Your task to perform on an android device: Search for sushi restaurants on Maps Image 0: 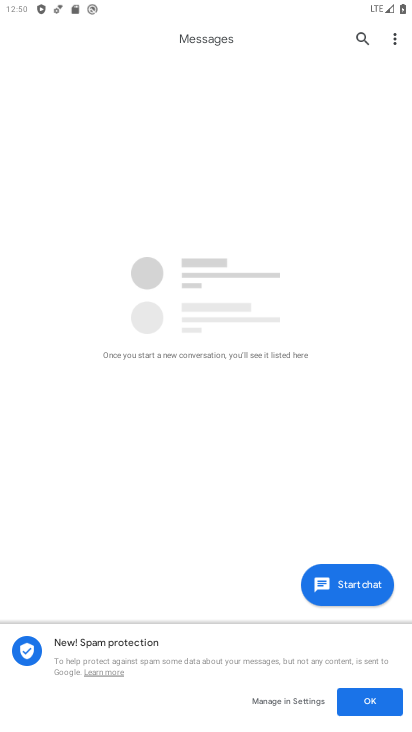
Step 0: press back button
Your task to perform on an android device: Search for sushi restaurants on Maps Image 1: 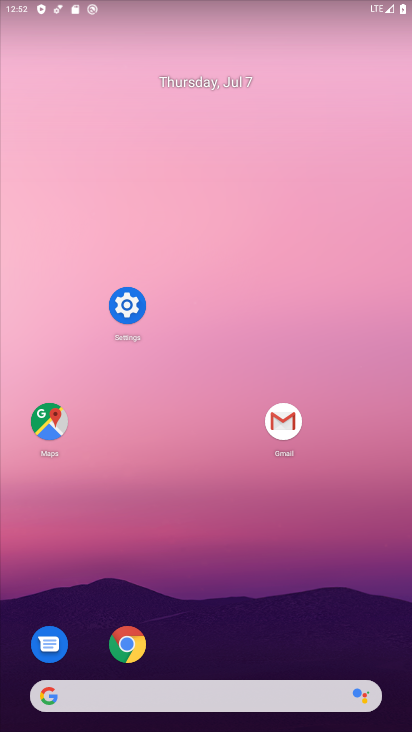
Step 1: click (47, 430)
Your task to perform on an android device: Search for sushi restaurants on Maps Image 2: 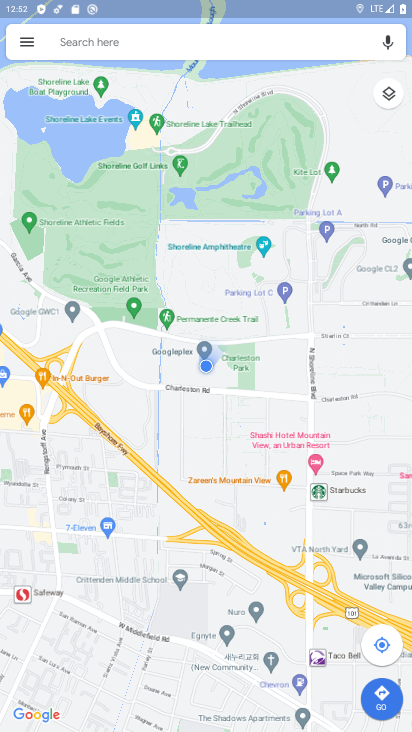
Step 2: click (152, 45)
Your task to perform on an android device: Search for sushi restaurants on Maps Image 3: 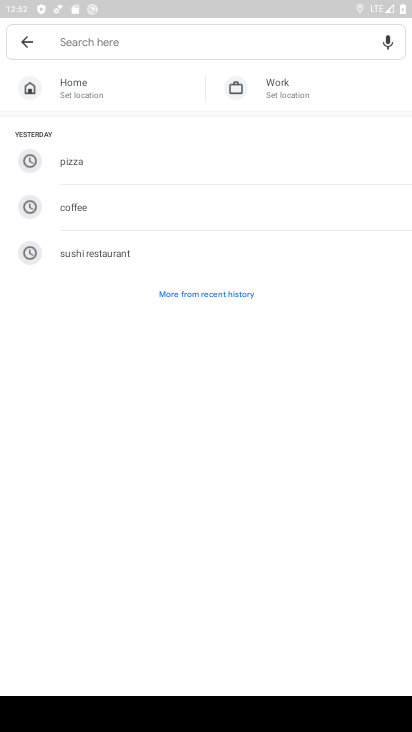
Step 3: type "sushi restaurants"
Your task to perform on an android device: Search for sushi restaurants on Maps Image 4: 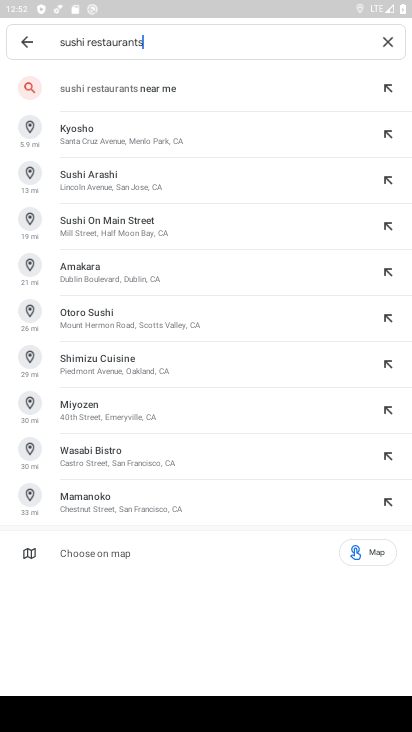
Step 4: click (151, 90)
Your task to perform on an android device: Search for sushi restaurants on Maps Image 5: 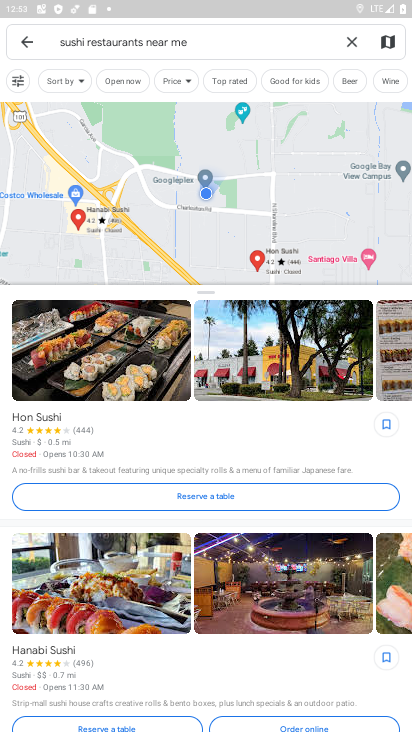
Step 5: task complete